Your task to perform on an android device: change the clock display to show seconds Image 0: 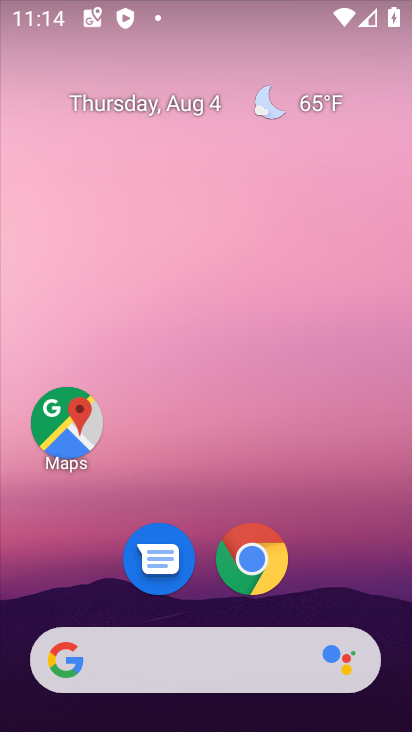
Step 0: drag from (342, 579) to (304, 140)
Your task to perform on an android device: change the clock display to show seconds Image 1: 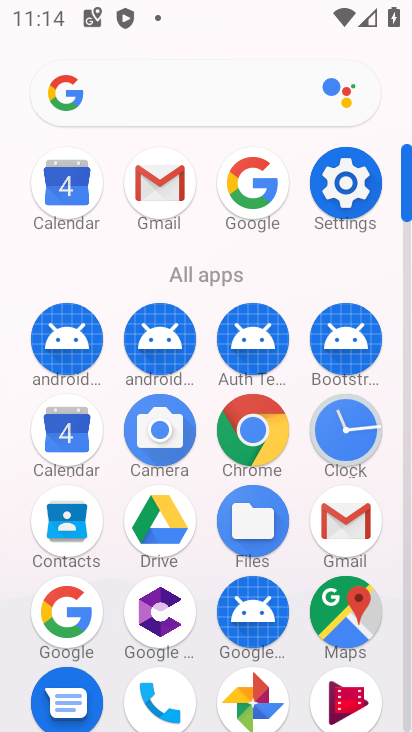
Step 1: click (351, 429)
Your task to perform on an android device: change the clock display to show seconds Image 2: 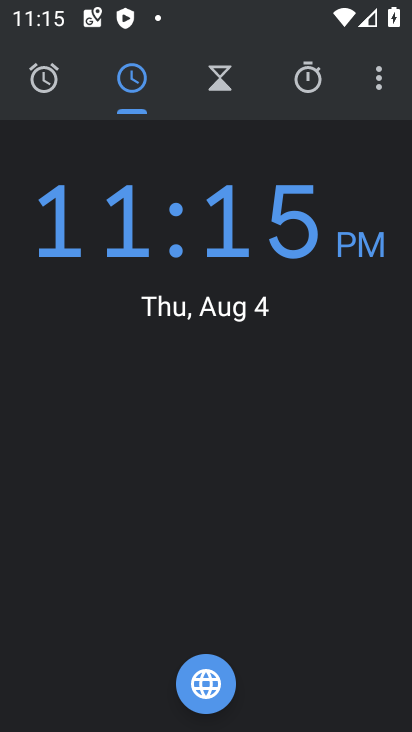
Step 2: click (376, 88)
Your task to perform on an android device: change the clock display to show seconds Image 3: 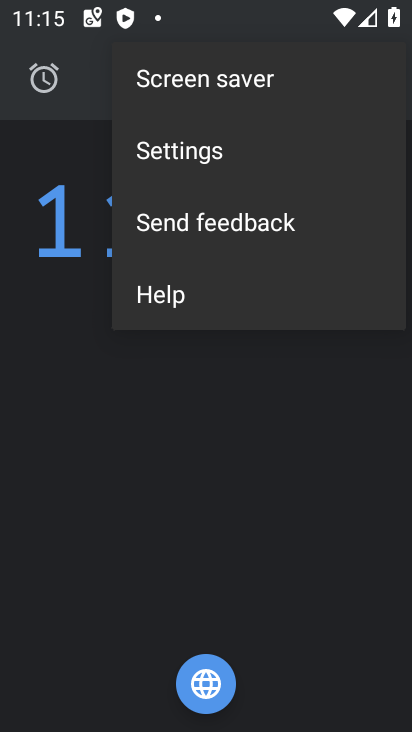
Step 3: click (243, 158)
Your task to perform on an android device: change the clock display to show seconds Image 4: 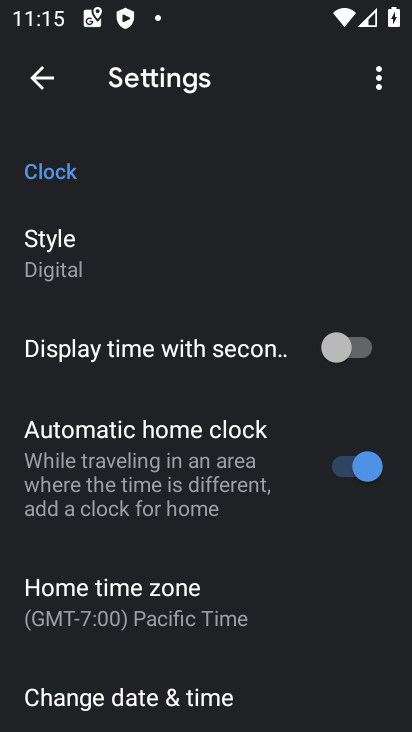
Step 4: click (341, 339)
Your task to perform on an android device: change the clock display to show seconds Image 5: 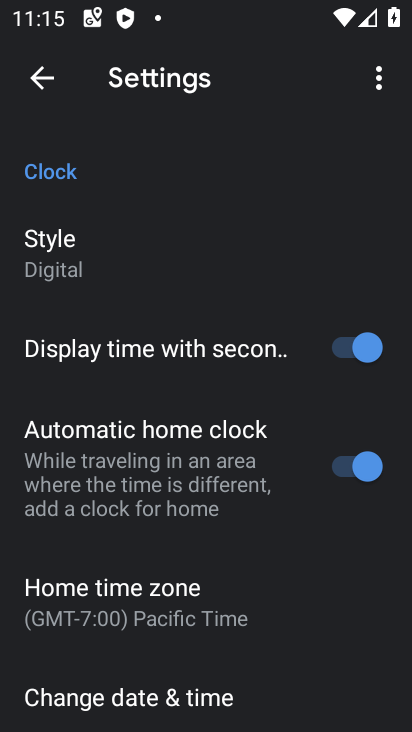
Step 5: task complete